Your task to perform on an android device: turn on location history Image 0: 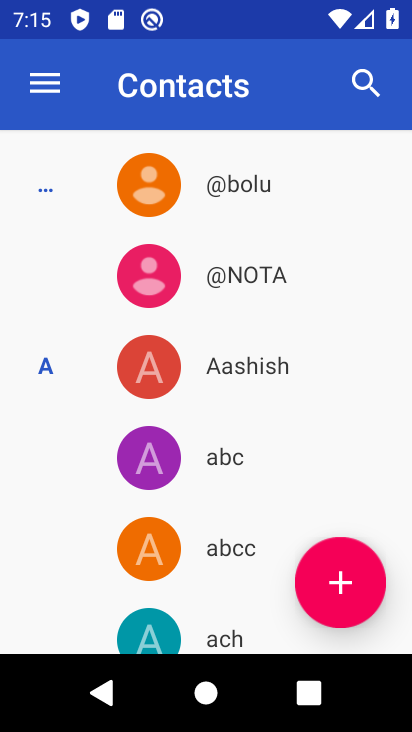
Step 0: press home button
Your task to perform on an android device: turn on location history Image 1: 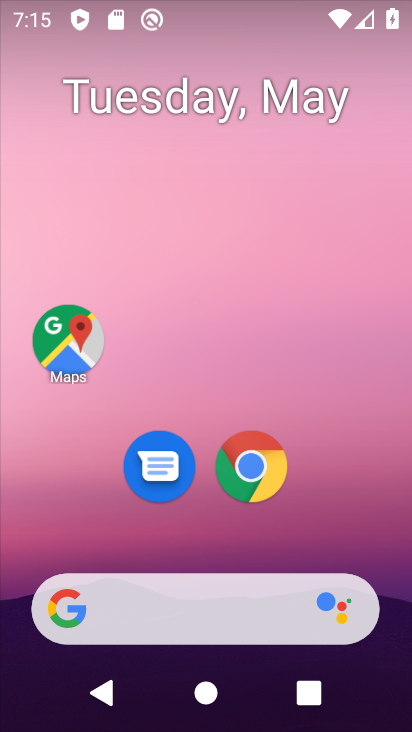
Step 1: drag from (173, 612) to (370, 93)
Your task to perform on an android device: turn on location history Image 2: 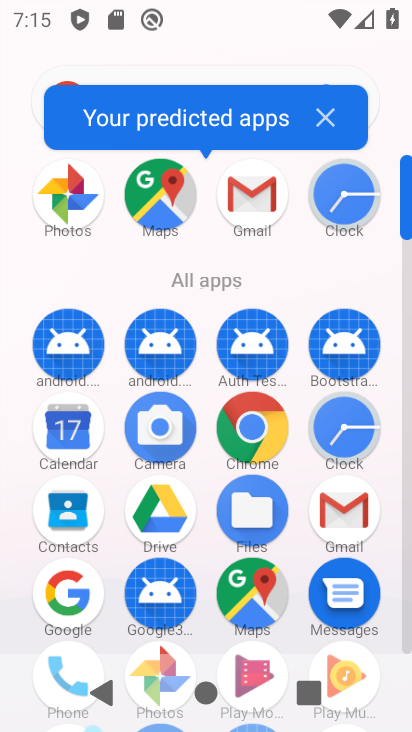
Step 2: drag from (195, 570) to (382, 129)
Your task to perform on an android device: turn on location history Image 3: 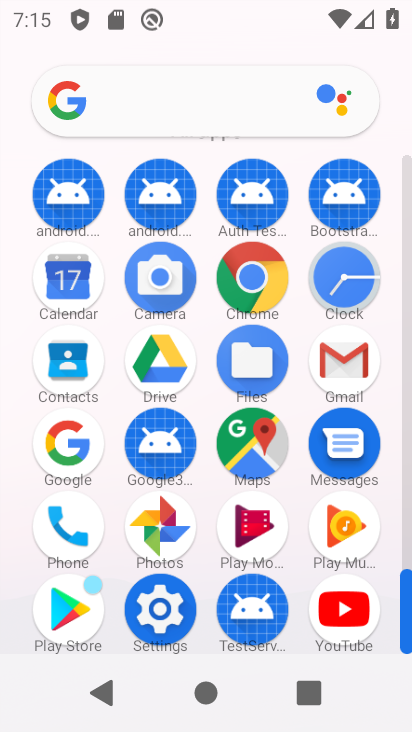
Step 3: click (163, 607)
Your task to perform on an android device: turn on location history Image 4: 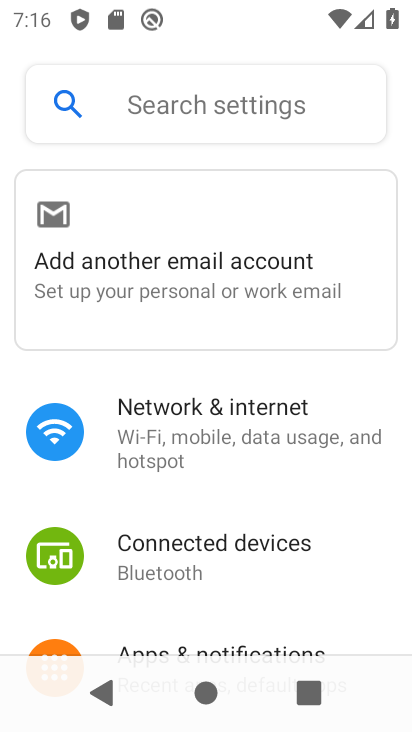
Step 4: drag from (161, 585) to (383, 113)
Your task to perform on an android device: turn on location history Image 5: 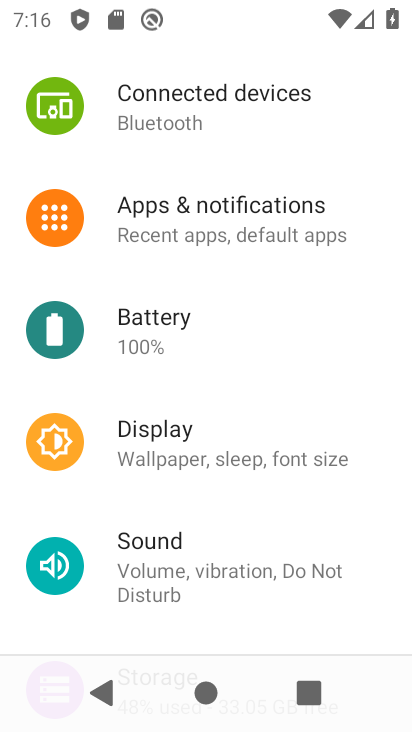
Step 5: drag from (225, 531) to (364, 157)
Your task to perform on an android device: turn on location history Image 6: 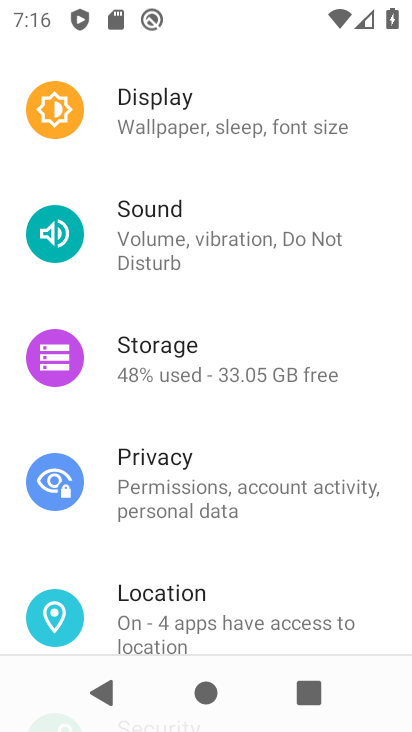
Step 6: click (197, 593)
Your task to perform on an android device: turn on location history Image 7: 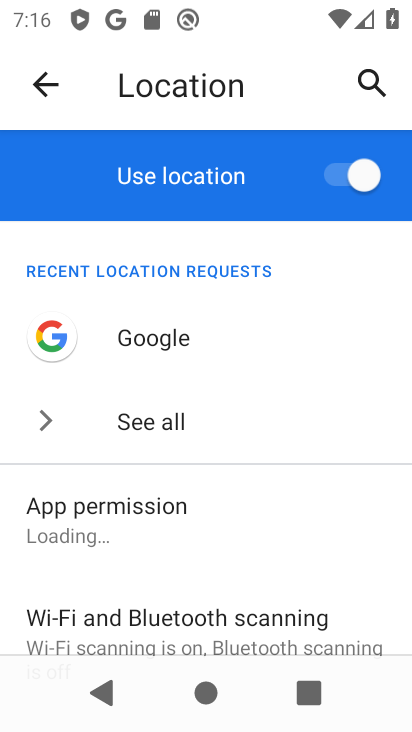
Step 7: drag from (206, 556) to (348, 279)
Your task to perform on an android device: turn on location history Image 8: 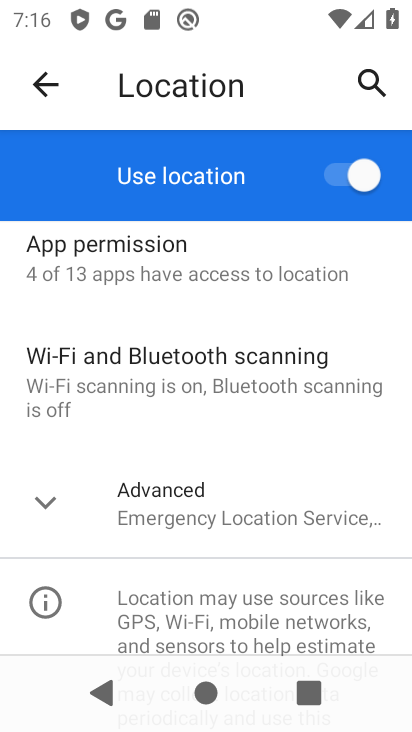
Step 8: click (139, 509)
Your task to perform on an android device: turn on location history Image 9: 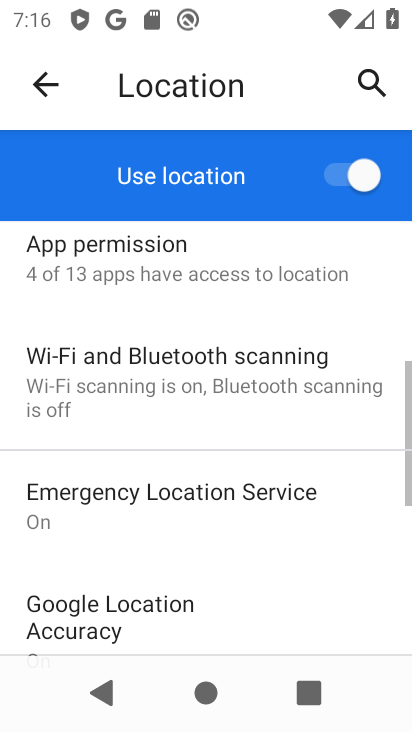
Step 9: drag from (207, 583) to (372, 214)
Your task to perform on an android device: turn on location history Image 10: 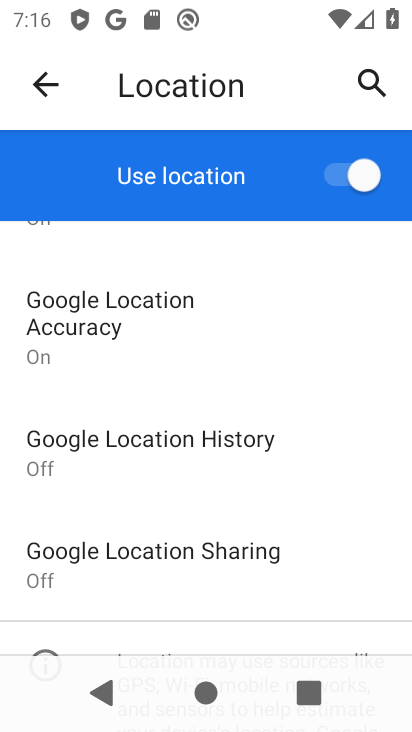
Step 10: click (206, 449)
Your task to perform on an android device: turn on location history Image 11: 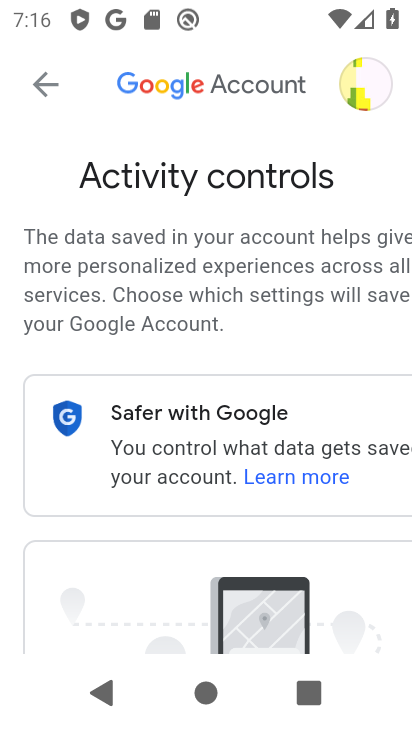
Step 11: drag from (177, 604) to (319, 127)
Your task to perform on an android device: turn on location history Image 12: 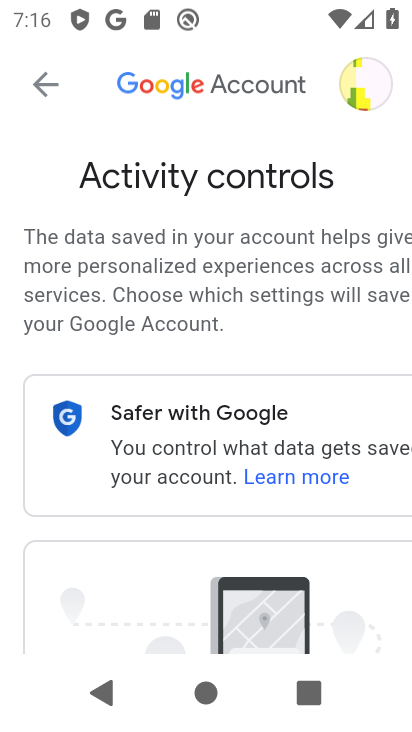
Step 12: drag from (176, 563) to (313, 52)
Your task to perform on an android device: turn on location history Image 13: 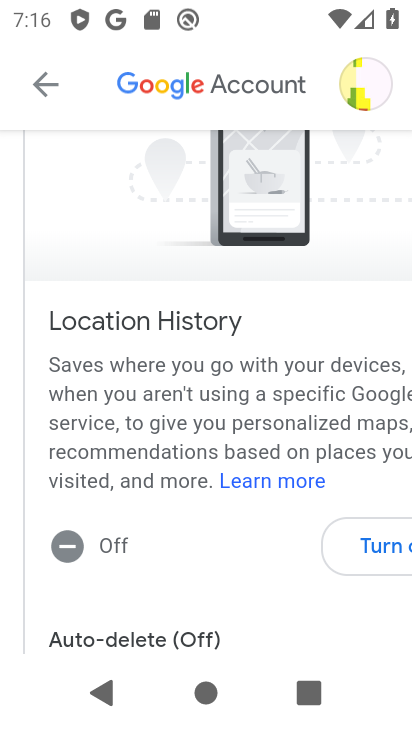
Step 13: click (370, 554)
Your task to perform on an android device: turn on location history Image 14: 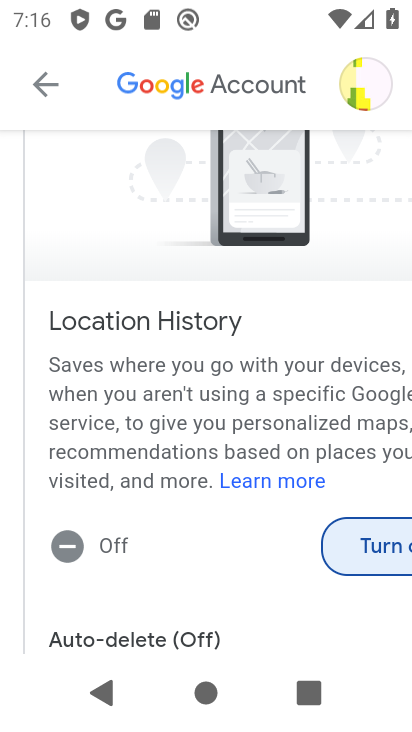
Step 14: click (379, 549)
Your task to perform on an android device: turn on location history Image 15: 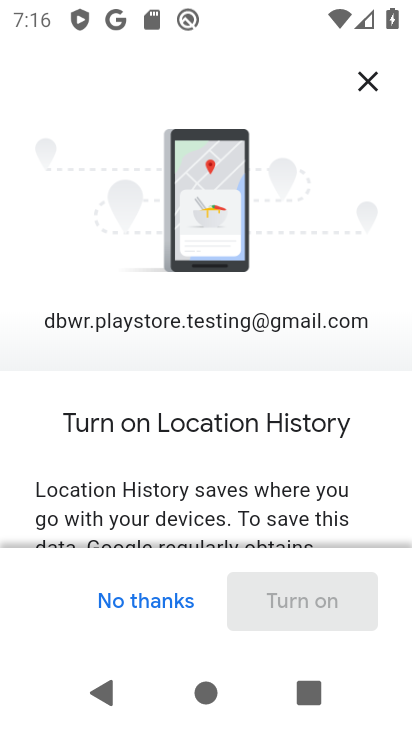
Step 15: drag from (301, 491) to (372, 107)
Your task to perform on an android device: turn on location history Image 16: 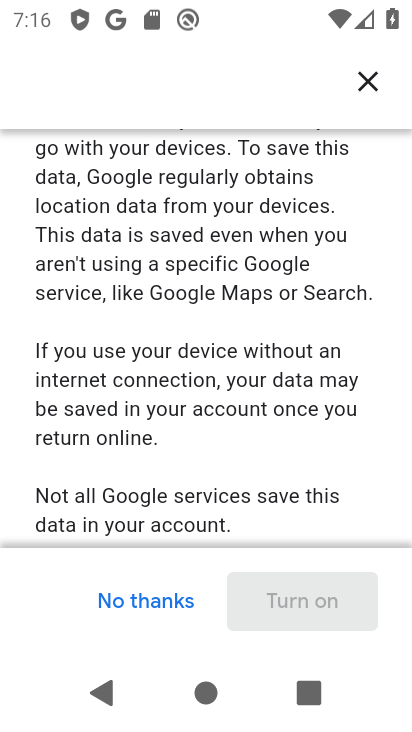
Step 16: drag from (192, 480) to (340, 32)
Your task to perform on an android device: turn on location history Image 17: 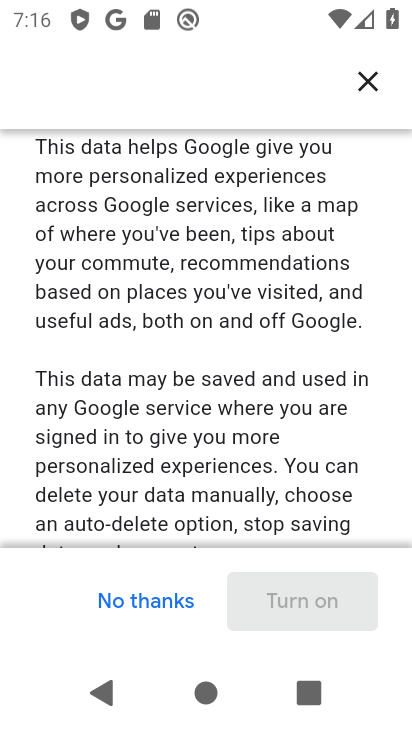
Step 17: drag from (210, 462) to (369, 72)
Your task to perform on an android device: turn on location history Image 18: 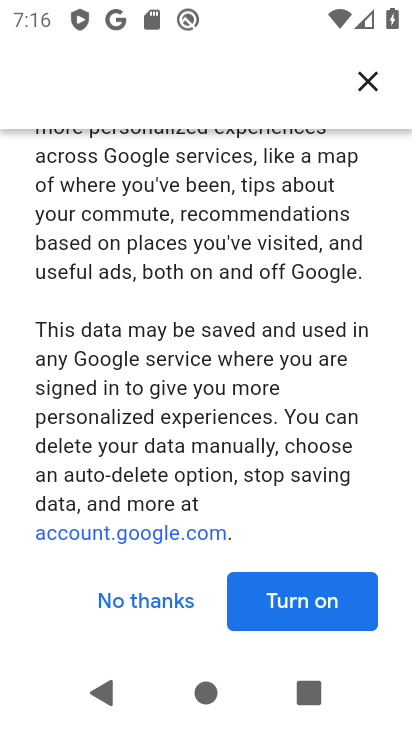
Step 18: click (297, 593)
Your task to perform on an android device: turn on location history Image 19: 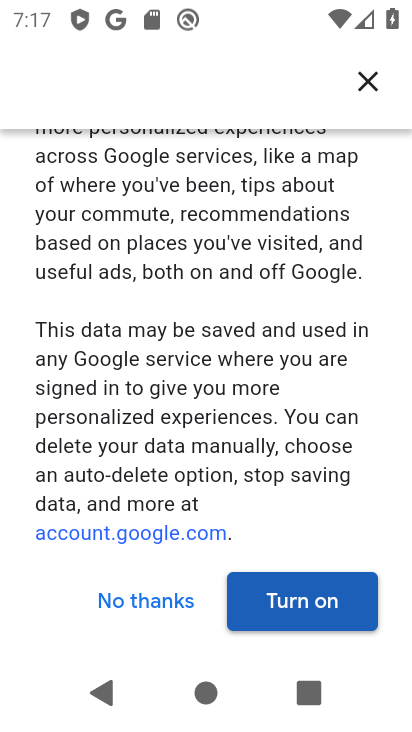
Step 19: click (304, 601)
Your task to perform on an android device: turn on location history Image 20: 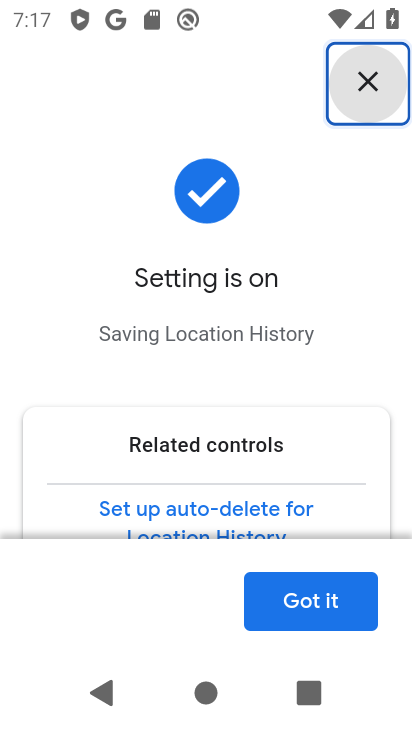
Step 20: click (315, 603)
Your task to perform on an android device: turn on location history Image 21: 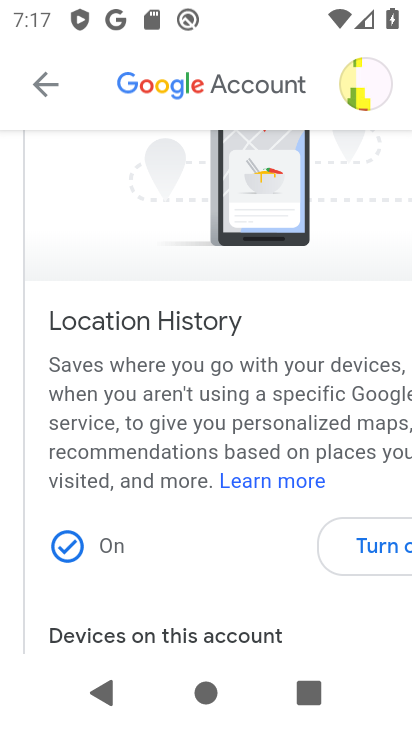
Step 21: task complete